Your task to perform on an android device: turn on data saver in the chrome app Image 0: 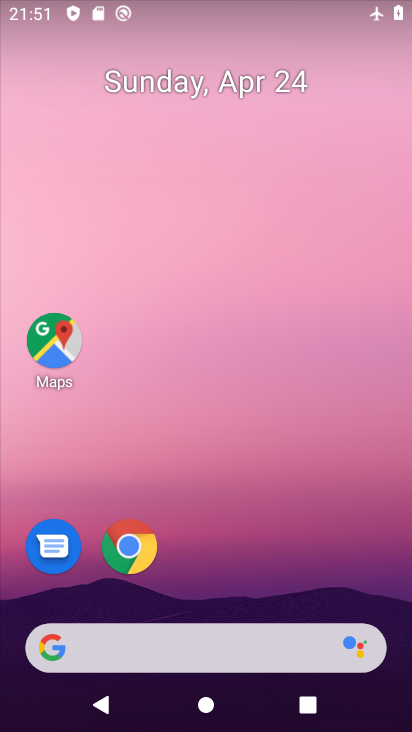
Step 0: drag from (228, 553) to (282, 250)
Your task to perform on an android device: turn on data saver in the chrome app Image 1: 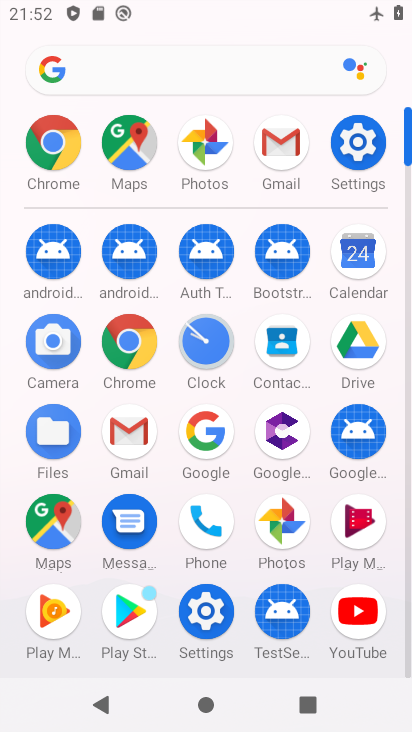
Step 1: click (129, 328)
Your task to perform on an android device: turn on data saver in the chrome app Image 2: 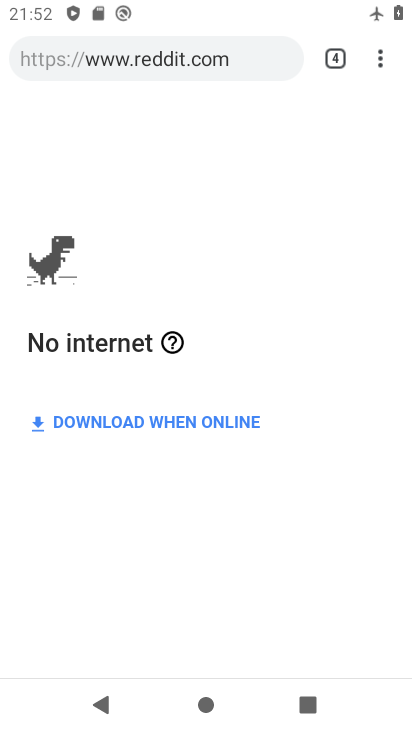
Step 2: click (372, 53)
Your task to perform on an android device: turn on data saver in the chrome app Image 3: 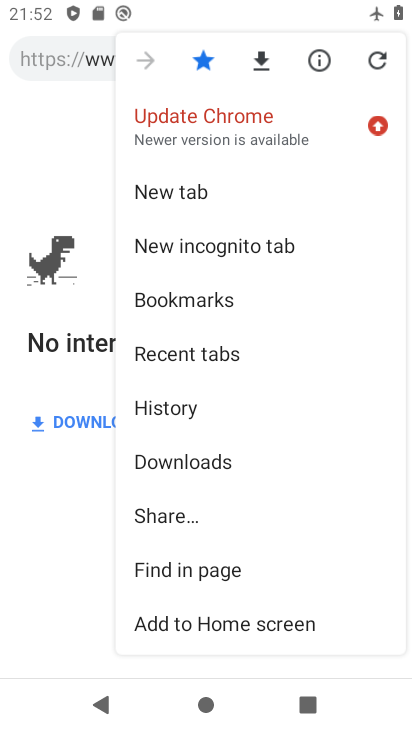
Step 3: drag from (245, 591) to (242, 248)
Your task to perform on an android device: turn on data saver in the chrome app Image 4: 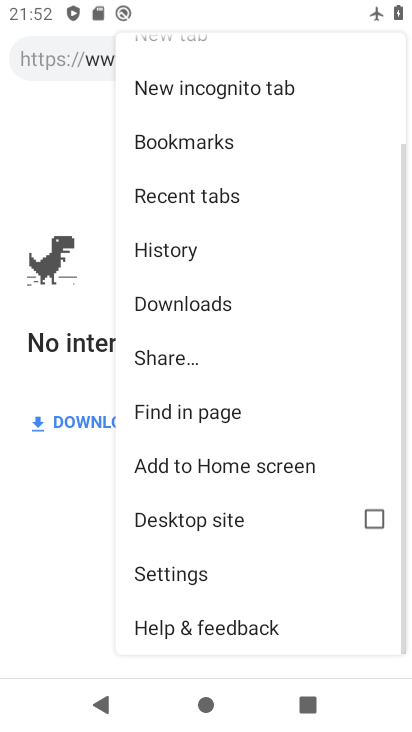
Step 4: click (199, 582)
Your task to perform on an android device: turn on data saver in the chrome app Image 5: 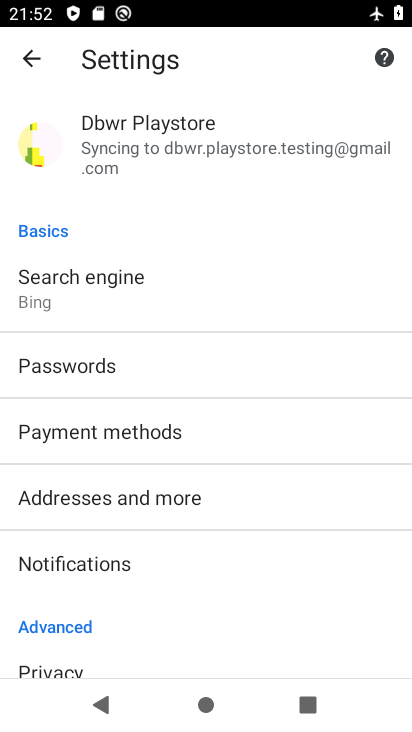
Step 5: drag from (188, 571) to (265, 244)
Your task to perform on an android device: turn on data saver in the chrome app Image 6: 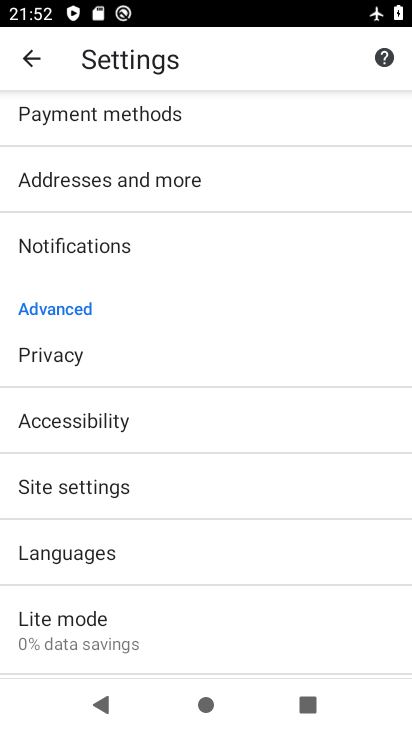
Step 6: click (115, 629)
Your task to perform on an android device: turn on data saver in the chrome app Image 7: 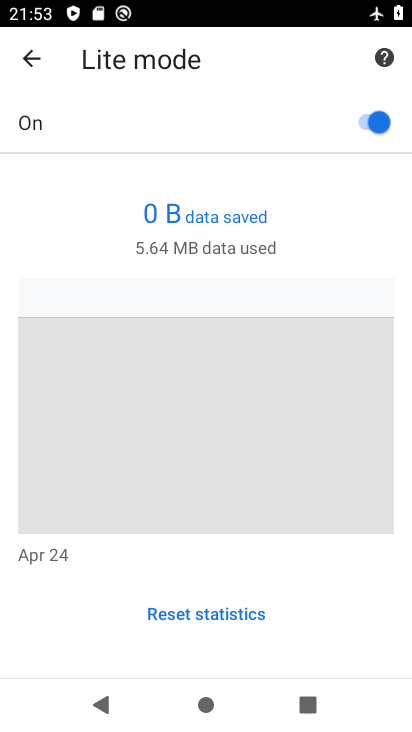
Step 7: task complete